Your task to perform on an android device: turn smart compose on in the gmail app Image 0: 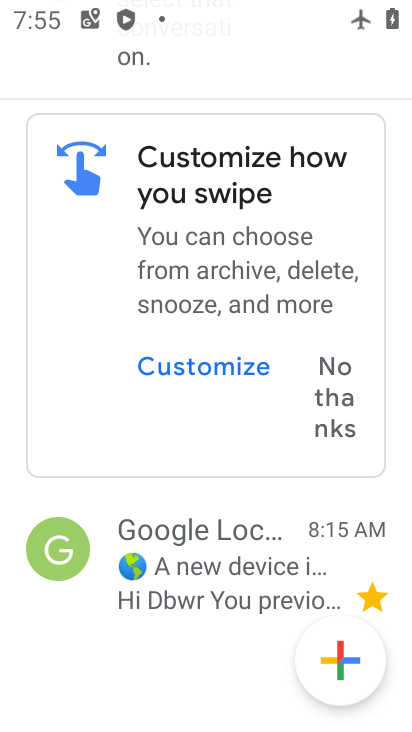
Step 0: press home button
Your task to perform on an android device: turn smart compose on in the gmail app Image 1: 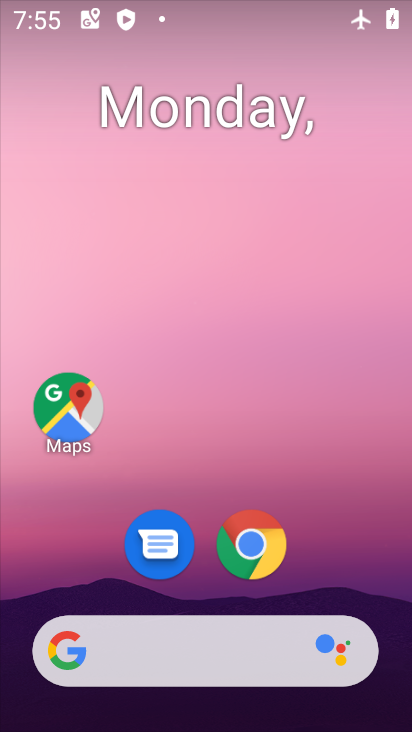
Step 1: drag from (311, 527) to (147, 0)
Your task to perform on an android device: turn smart compose on in the gmail app Image 2: 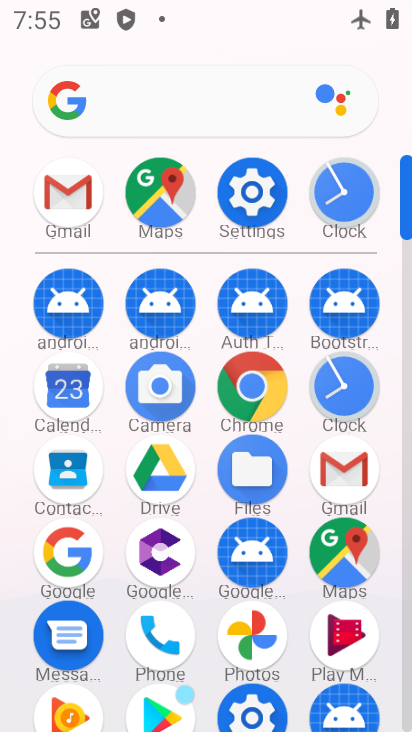
Step 2: click (343, 469)
Your task to perform on an android device: turn smart compose on in the gmail app Image 3: 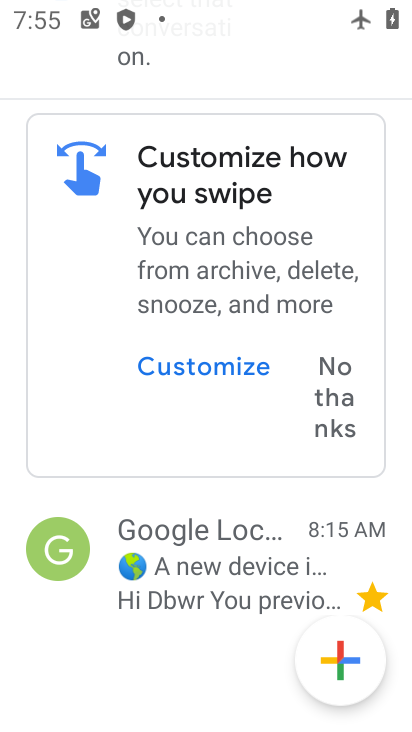
Step 3: drag from (85, 245) to (138, 643)
Your task to perform on an android device: turn smart compose on in the gmail app Image 4: 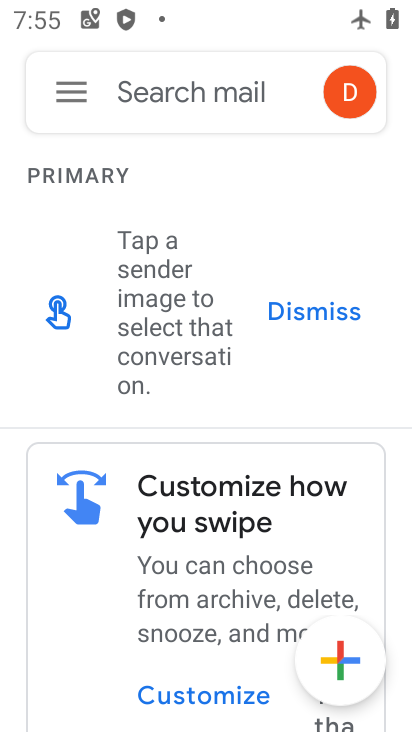
Step 4: click (77, 86)
Your task to perform on an android device: turn smart compose on in the gmail app Image 5: 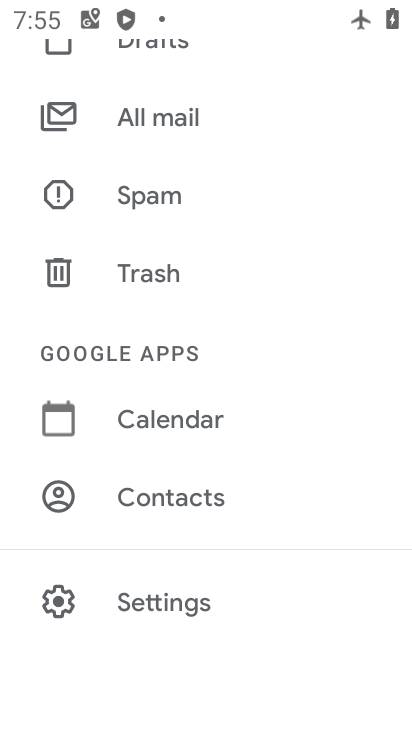
Step 5: click (161, 605)
Your task to perform on an android device: turn smart compose on in the gmail app Image 6: 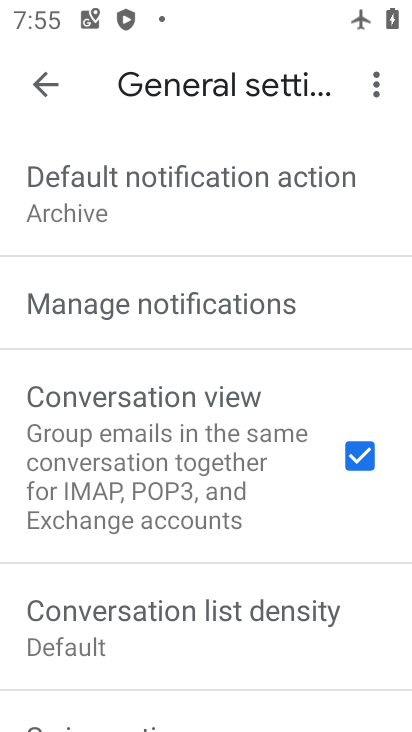
Step 6: click (42, 71)
Your task to perform on an android device: turn smart compose on in the gmail app Image 7: 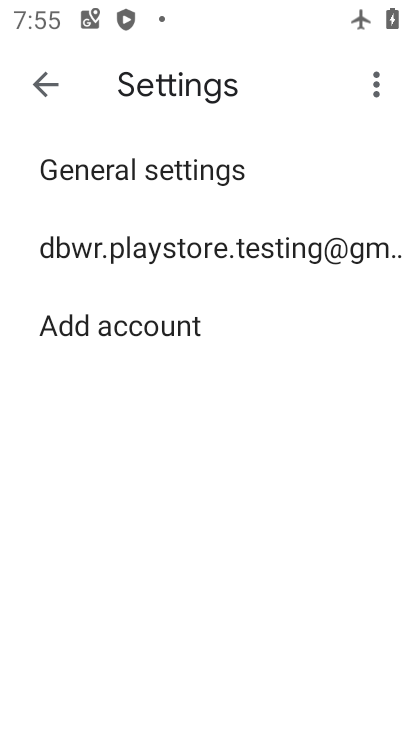
Step 7: click (128, 241)
Your task to perform on an android device: turn smart compose on in the gmail app Image 8: 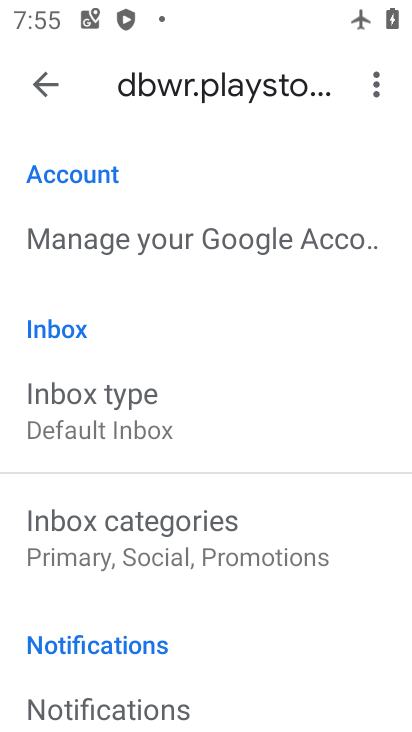
Step 8: task complete